Your task to perform on an android device: toggle javascript in the chrome app Image 0: 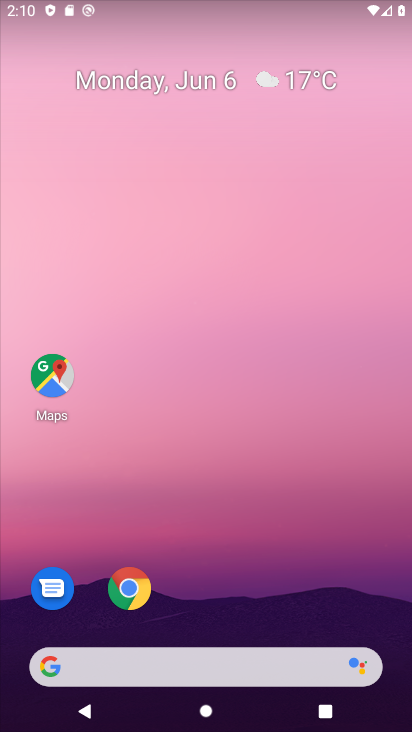
Step 0: click (127, 599)
Your task to perform on an android device: toggle javascript in the chrome app Image 1: 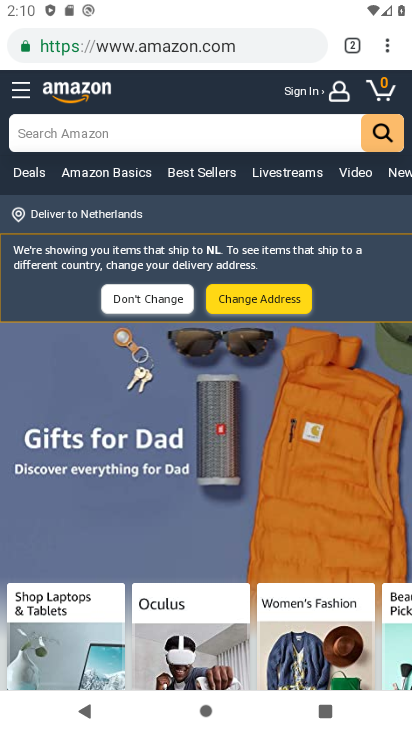
Step 1: drag from (396, 51) to (240, 548)
Your task to perform on an android device: toggle javascript in the chrome app Image 2: 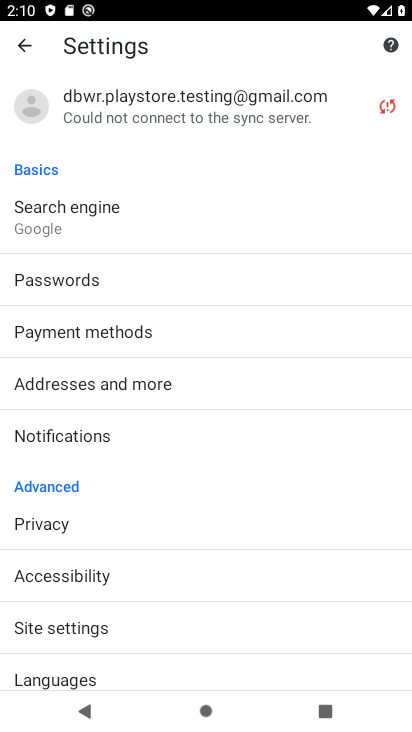
Step 2: click (137, 638)
Your task to perform on an android device: toggle javascript in the chrome app Image 3: 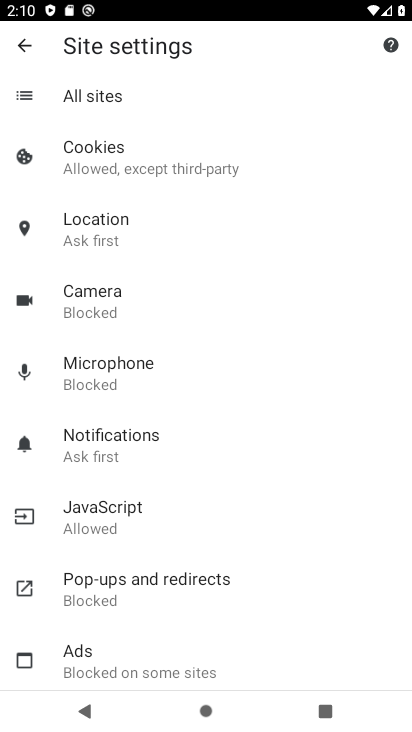
Step 3: click (144, 507)
Your task to perform on an android device: toggle javascript in the chrome app Image 4: 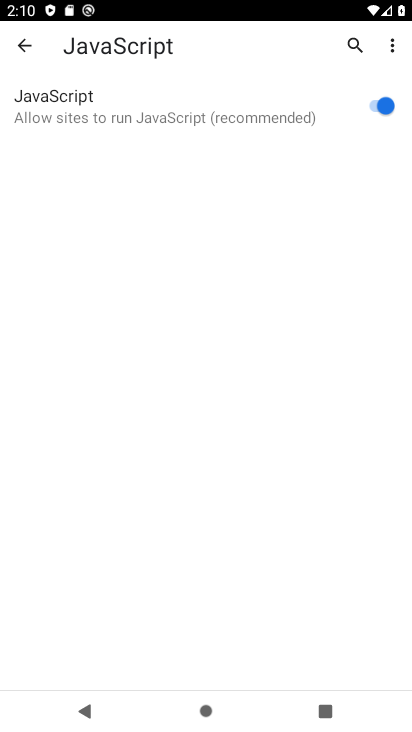
Step 4: click (377, 109)
Your task to perform on an android device: toggle javascript in the chrome app Image 5: 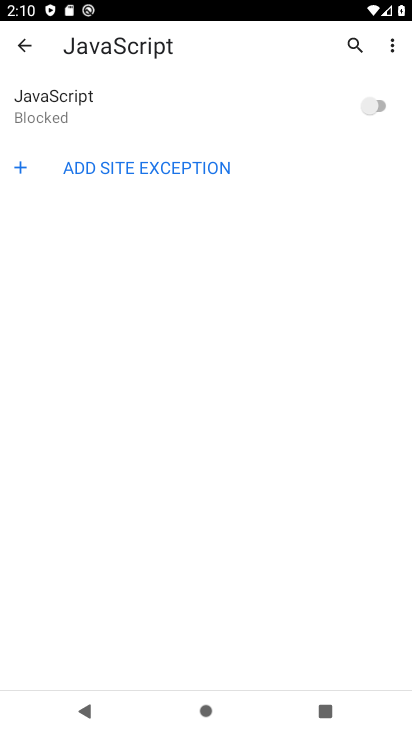
Step 5: task complete